Your task to perform on an android device: What is the news today? Image 0: 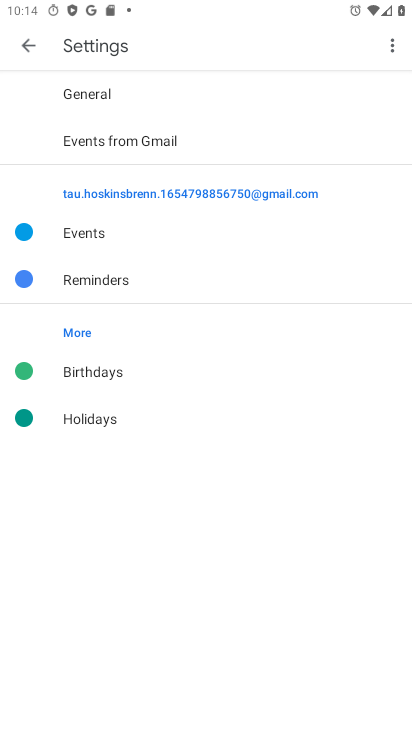
Step 0: press home button
Your task to perform on an android device: What is the news today? Image 1: 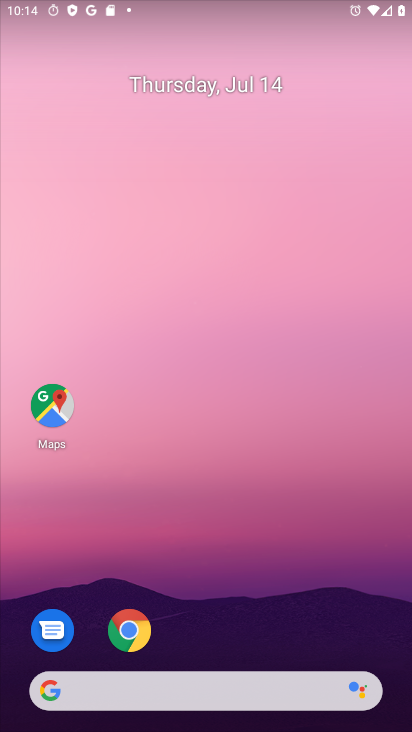
Step 1: drag from (9, 686) to (400, 594)
Your task to perform on an android device: What is the news today? Image 2: 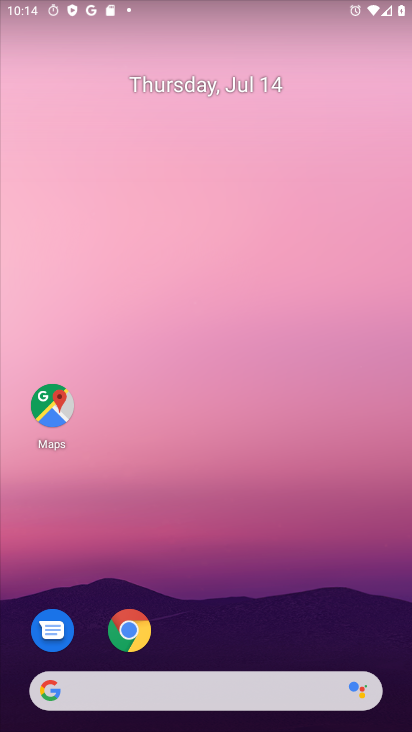
Step 2: click (140, 680)
Your task to perform on an android device: What is the news today? Image 3: 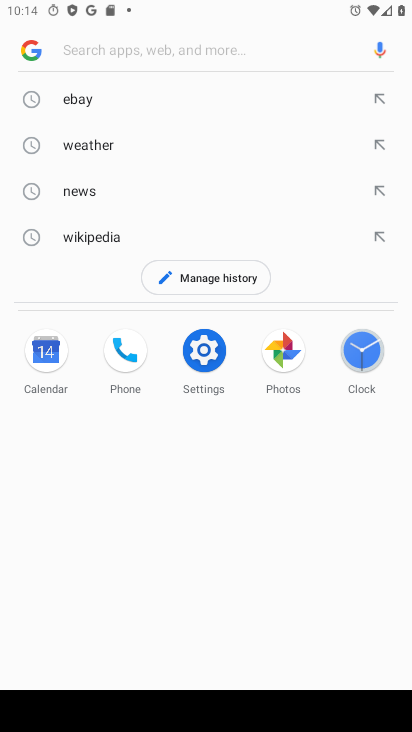
Step 3: type "What is the news today?"
Your task to perform on an android device: What is the news today? Image 4: 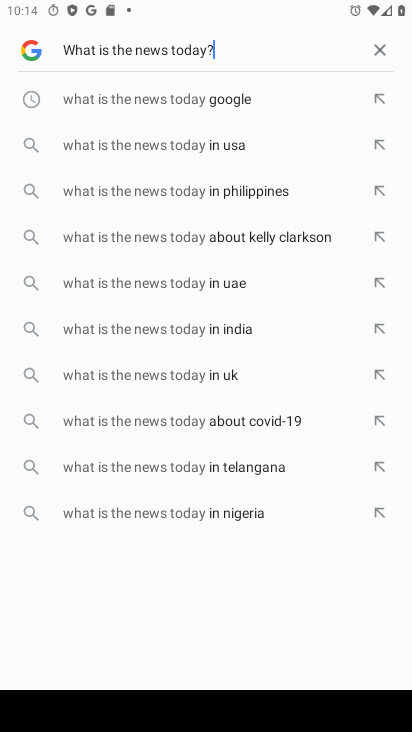
Step 4: type ""
Your task to perform on an android device: What is the news today? Image 5: 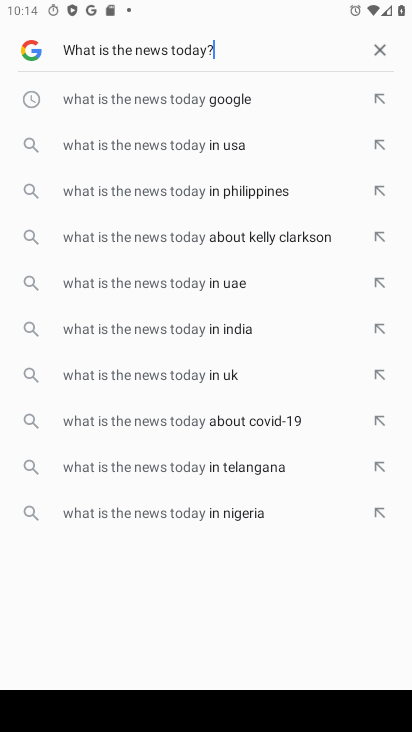
Step 5: type ""
Your task to perform on an android device: What is the news today? Image 6: 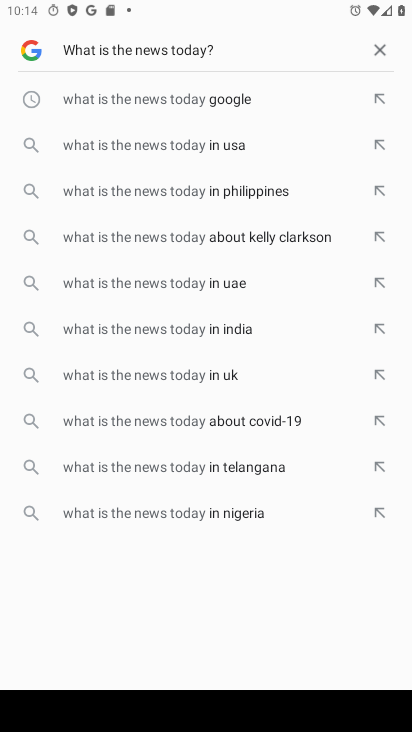
Step 6: type ""
Your task to perform on an android device: What is the news today? Image 7: 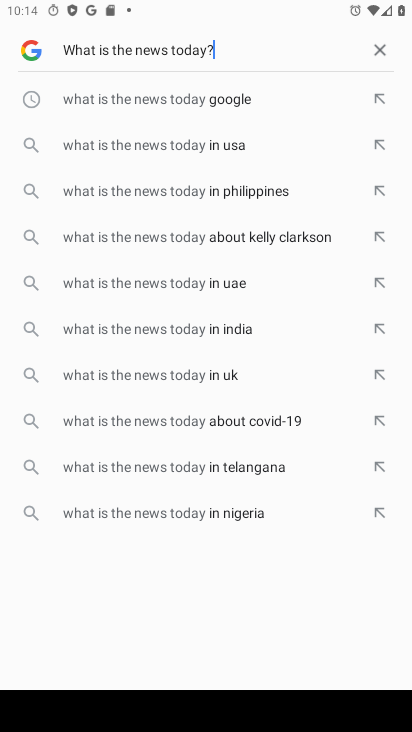
Step 7: task complete